Your task to perform on an android device: change text size in settings app Image 0: 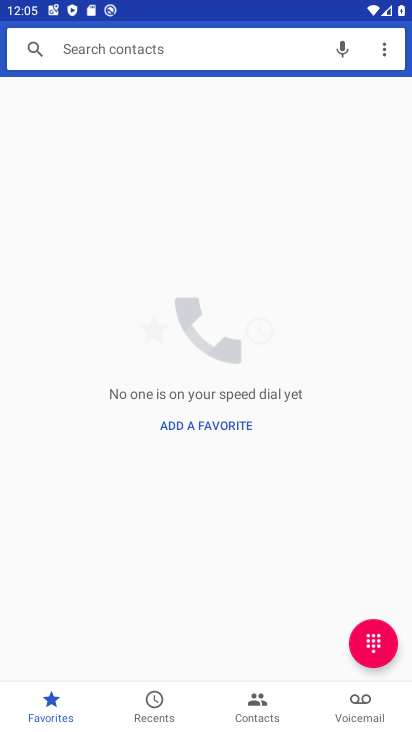
Step 0: press home button
Your task to perform on an android device: change text size in settings app Image 1: 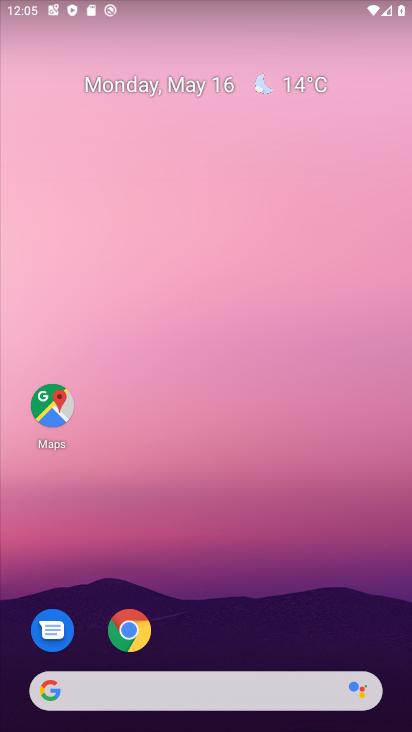
Step 1: drag from (269, 644) to (239, 101)
Your task to perform on an android device: change text size in settings app Image 2: 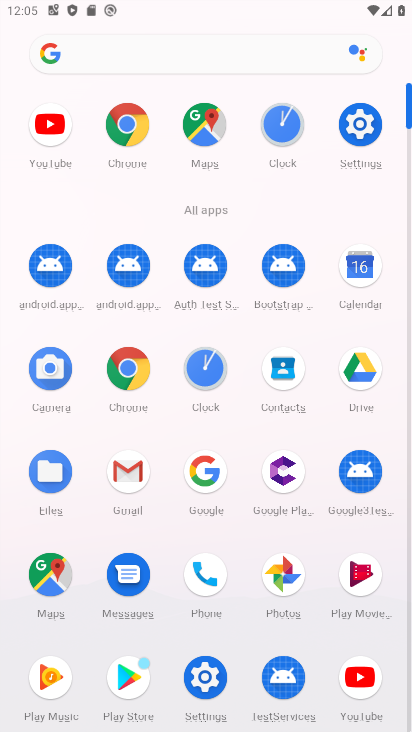
Step 2: click (355, 134)
Your task to perform on an android device: change text size in settings app Image 3: 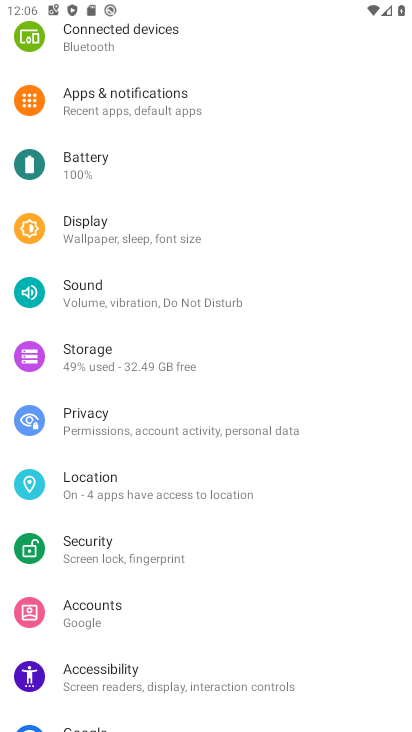
Step 3: click (168, 230)
Your task to perform on an android device: change text size in settings app Image 4: 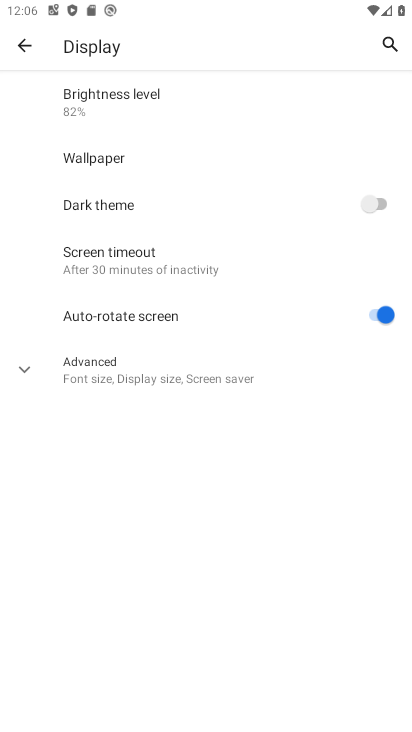
Step 4: click (182, 376)
Your task to perform on an android device: change text size in settings app Image 5: 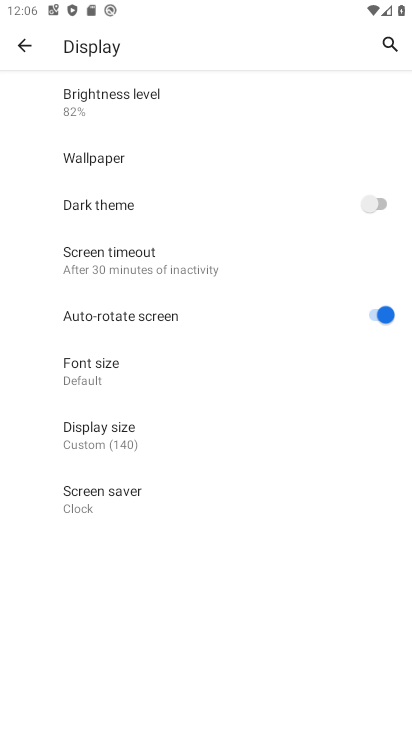
Step 5: drag from (184, 450) to (178, 361)
Your task to perform on an android device: change text size in settings app Image 6: 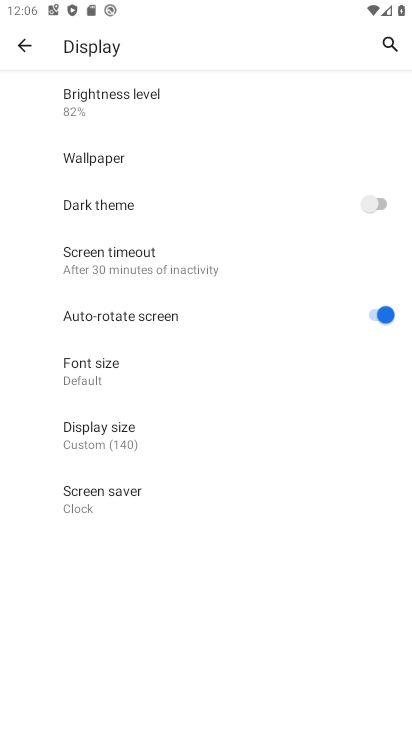
Step 6: click (176, 366)
Your task to perform on an android device: change text size in settings app Image 7: 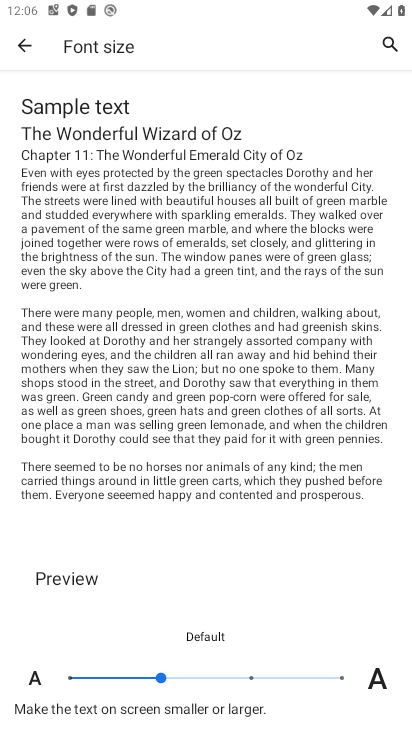
Step 7: click (225, 671)
Your task to perform on an android device: change text size in settings app Image 8: 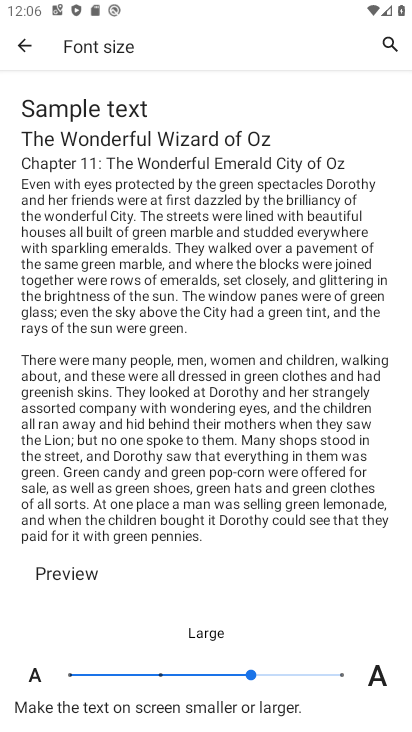
Step 8: task complete